Your task to perform on an android device: check android version Image 0: 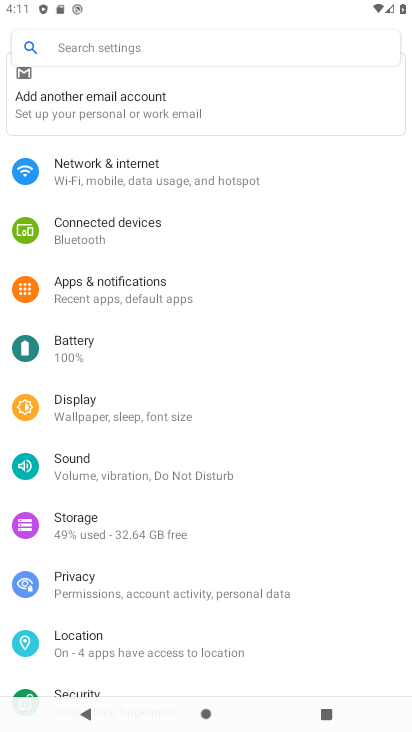
Step 0: press home button
Your task to perform on an android device: check android version Image 1: 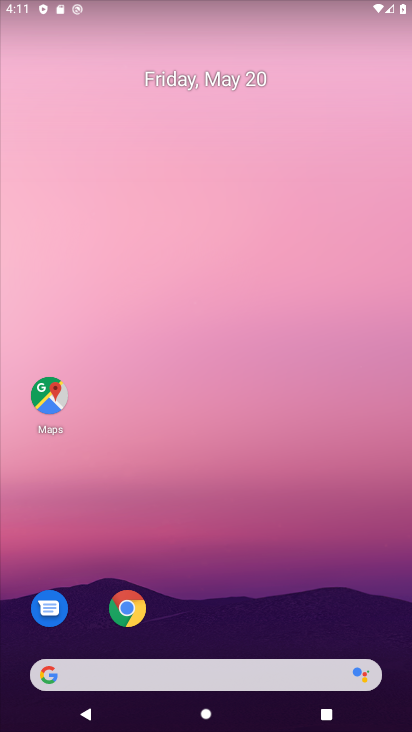
Step 1: drag from (210, 671) to (183, 50)
Your task to perform on an android device: check android version Image 2: 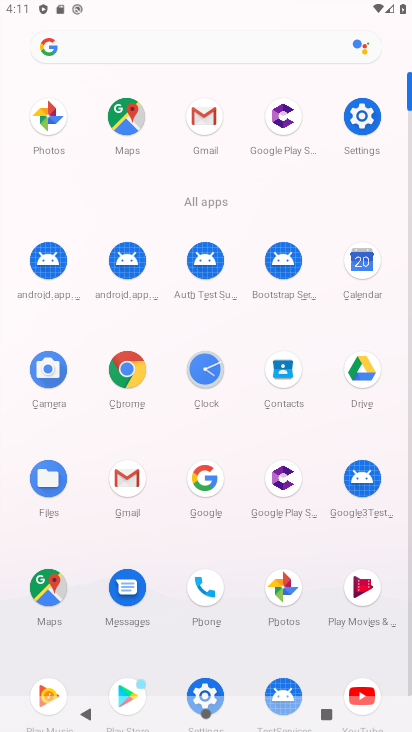
Step 2: click (363, 117)
Your task to perform on an android device: check android version Image 3: 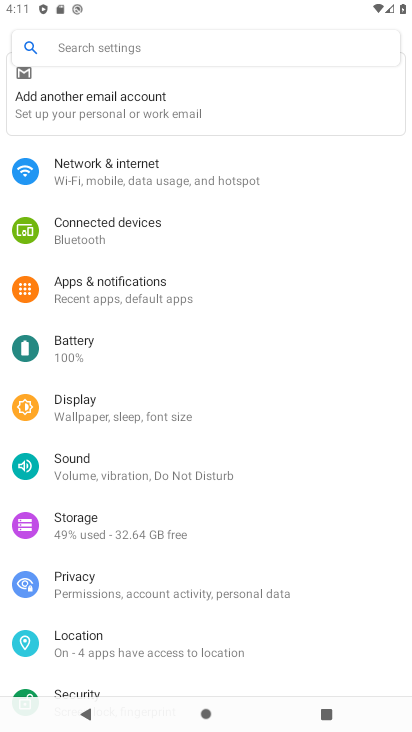
Step 3: drag from (137, 505) to (131, 93)
Your task to perform on an android device: check android version Image 4: 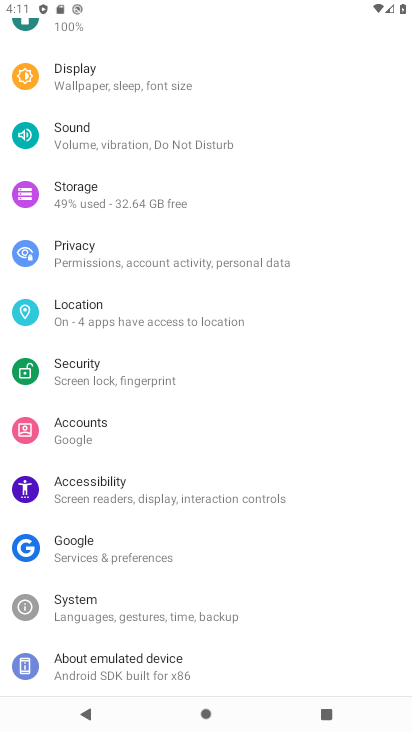
Step 4: click (125, 663)
Your task to perform on an android device: check android version Image 5: 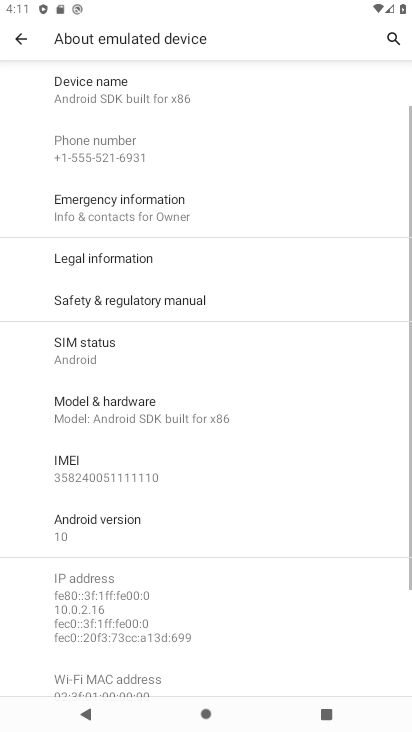
Step 5: click (122, 518)
Your task to perform on an android device: check android version Image 6: 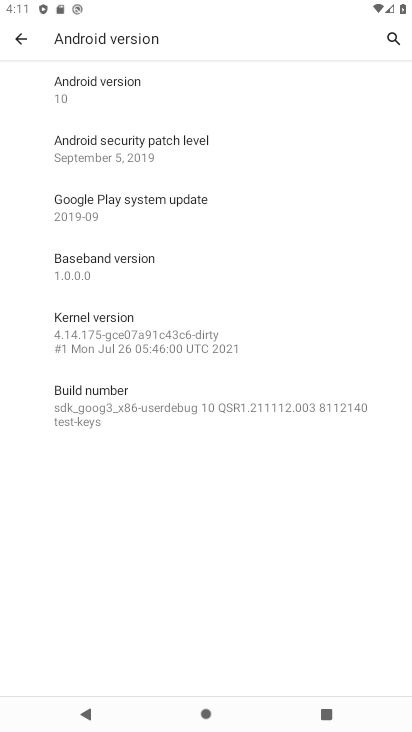
Step 6: task complete